Your task to perform on an android device: toggle priority inbox in the gmail app Image 0: 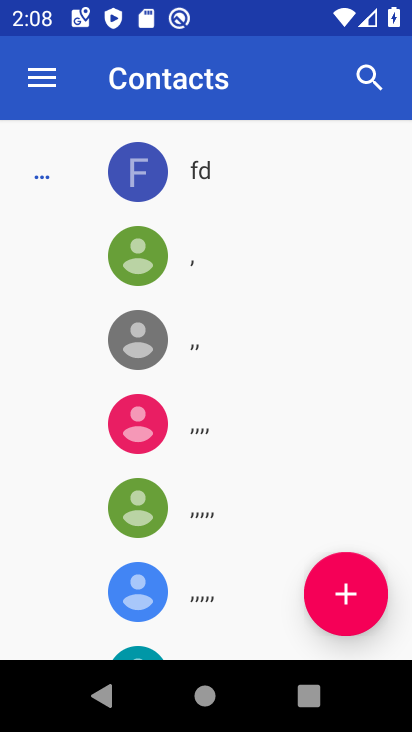
Step 0: press home button
Your task to perform on an android device: toggle priority inbox in the gmail app Image 1: 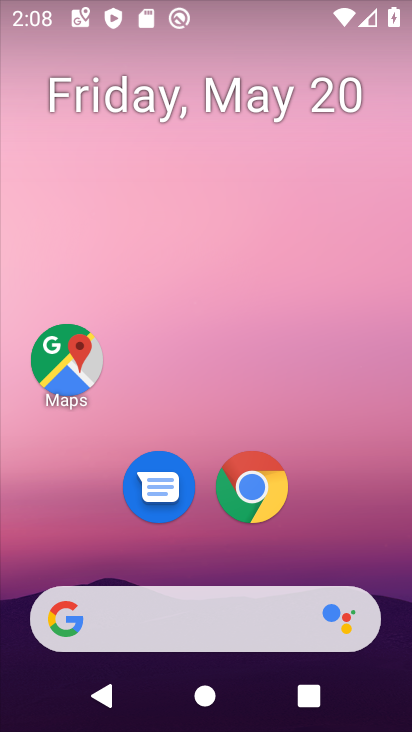
Step 1: drag from (357, 525) to (337, 5)
Your task to perform on an android device: toggle priority inbox in the gmail app Image 2: 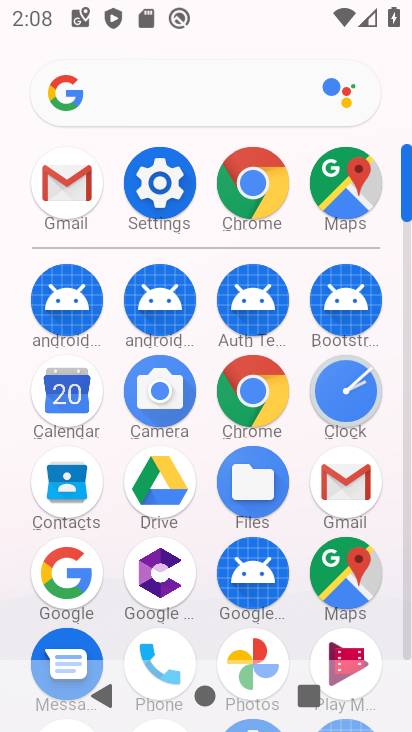
Step 2: click (63, 219)
Your task to perform on an android device: toggle priority inbox in the gmail app Image 3: 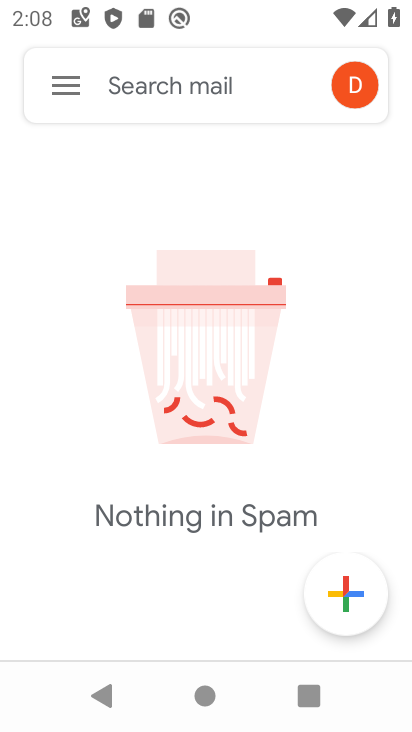
Step 3: click (77, 86)
Your task to perform on an android device: toggle priority inbox in the gmail app Image 4: 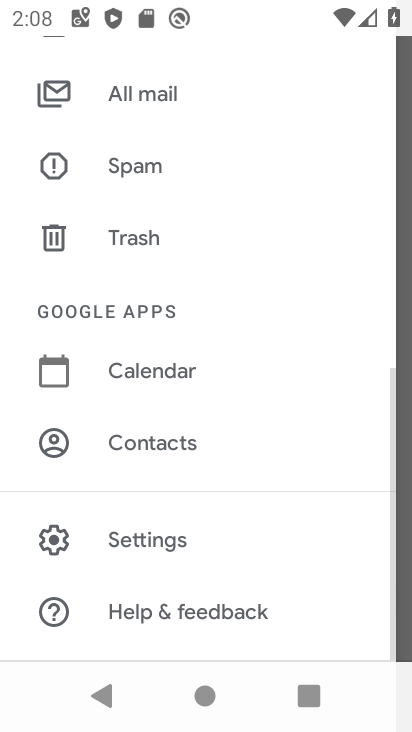
Step 4: click (149, 548)
Your task to perform on an android device: toggle priority inbox in the gmail app Image 5: 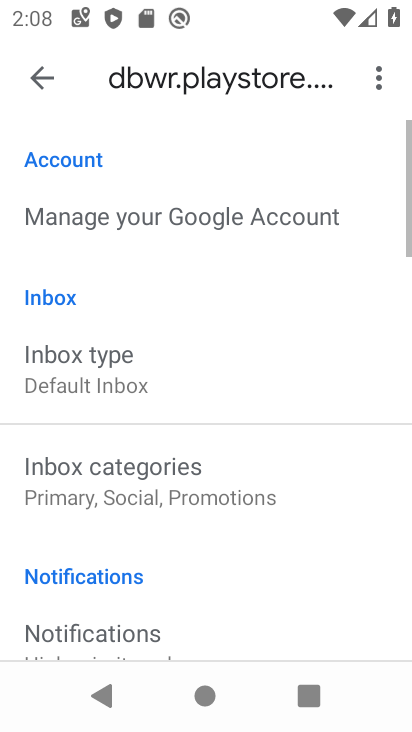
Step 5: click (102, 382)
Your task to perform on an android device: toggle priority inbox in the gmail app Image 6: 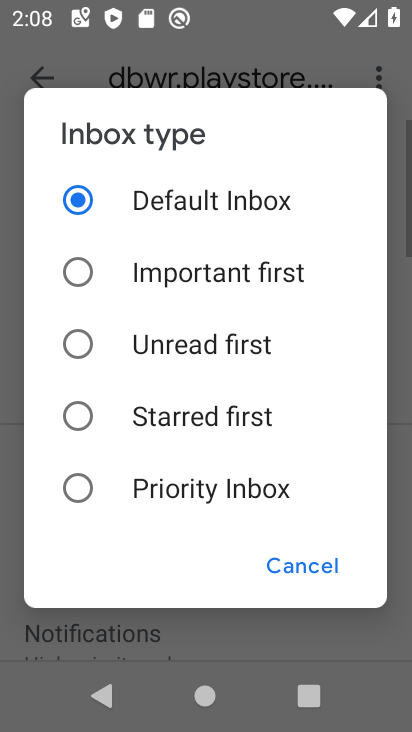
Step 6: click (136, 489)
Your task to perform on an android device: toggle priority inbox in the gmail app Image 7: 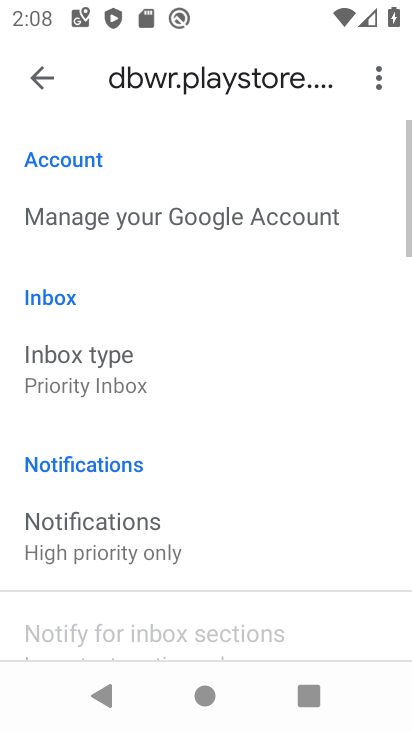
Step 7: task complete